Your task to perform on an android device: Open the Play Movies app and select the watchlist tab. Image 0: 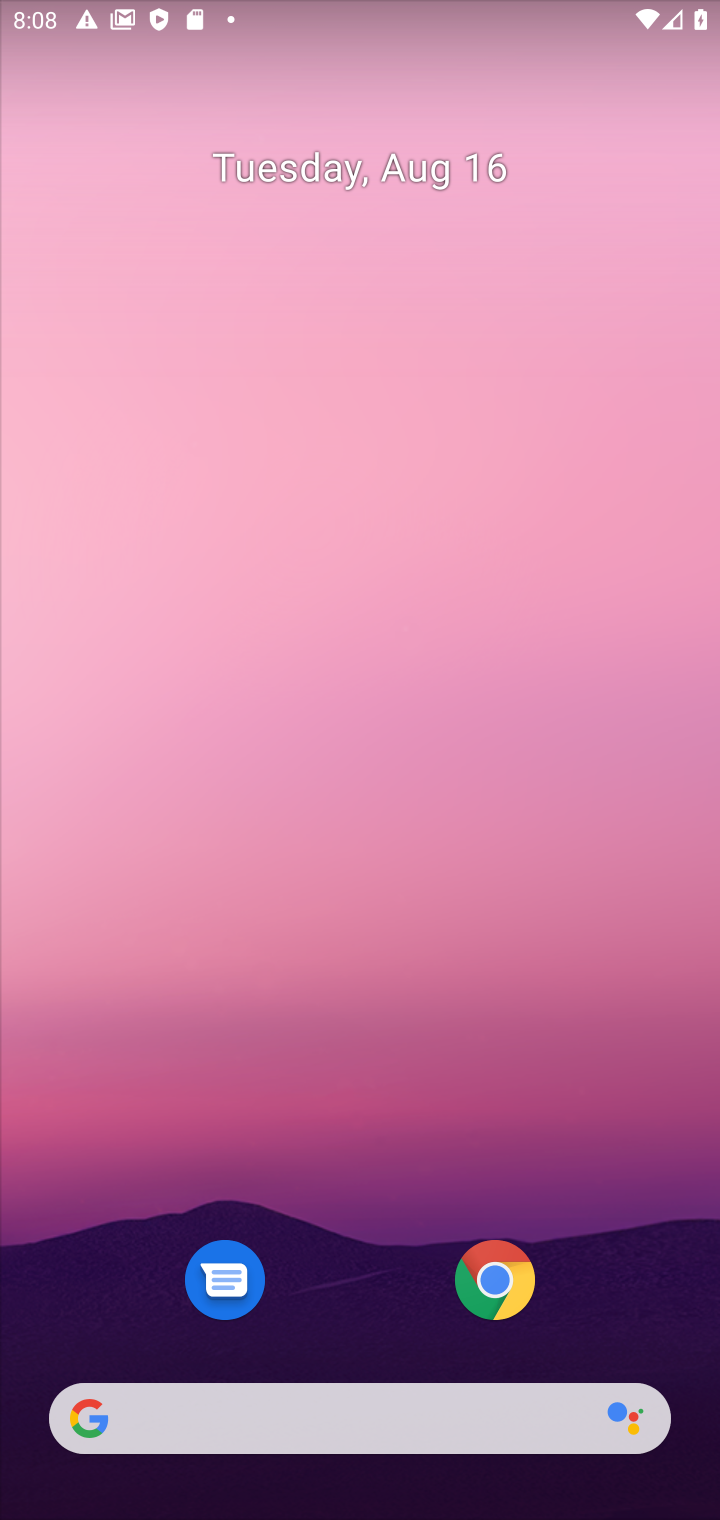
Step 0: drag from (326, 842) to (465, 213)
Your task to perform on an android device: Open the Play Movies app and select the watchlist tab. Image 1: 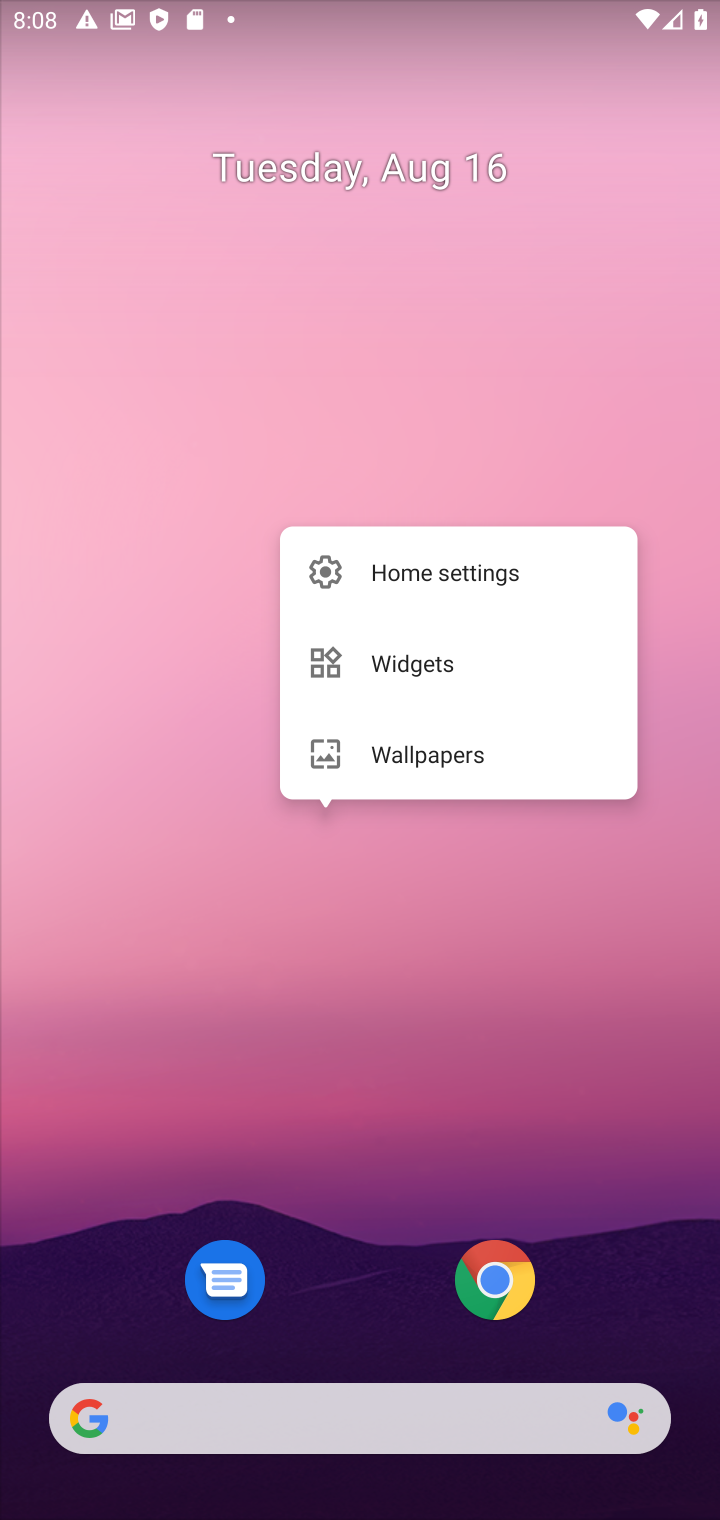
Step 1: click (353, 1270)
Your task to perform on an android device: Open the Play Movies app and select the watchlist tab. Image 2: 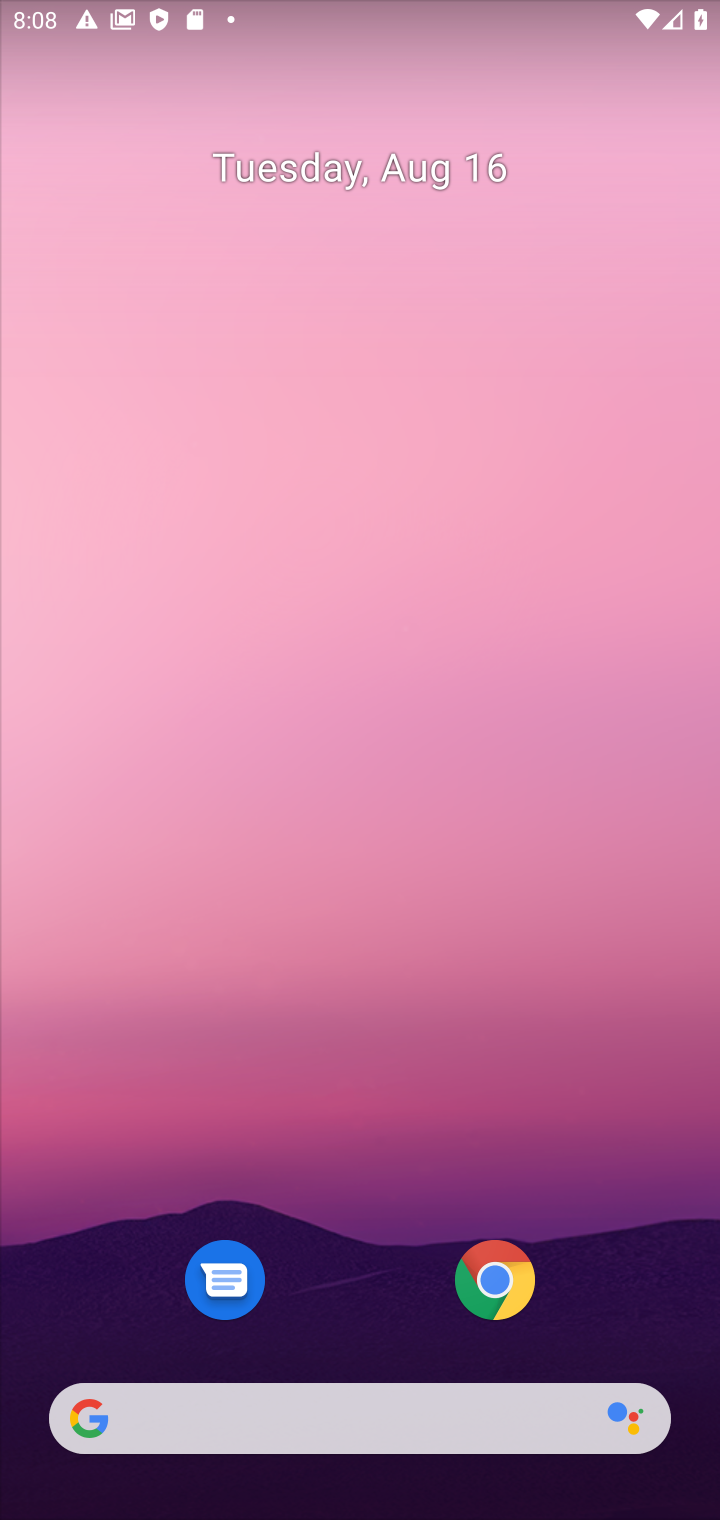
Step 2: drag from (354, 1352) to (425, 127)
Your task to perform on an android device: Open the Play Movies app and select the watchlist tab. Image 3: 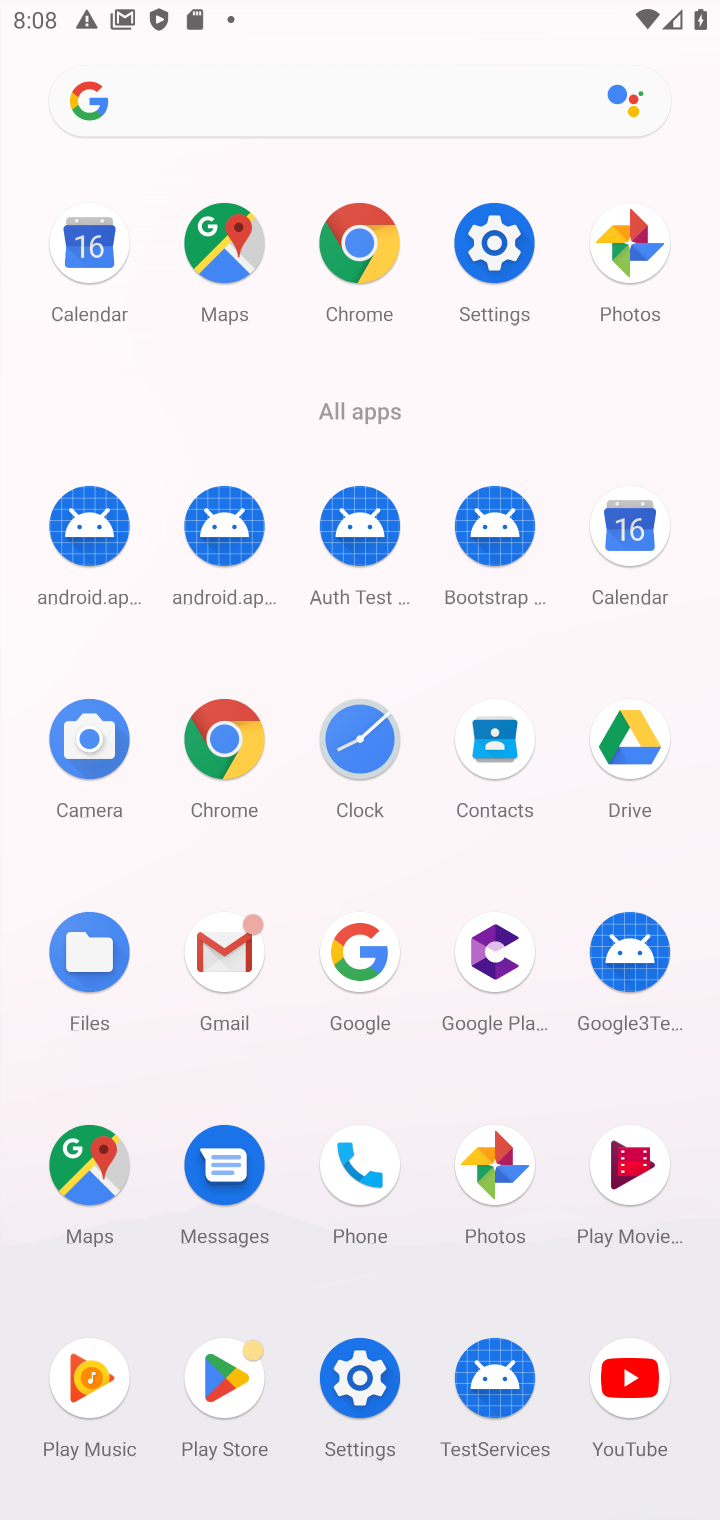
Step 3: click (635, 1189)
Your task to perform on an android device: Open the Play Movies app and select the watchlist tab. Image 4: 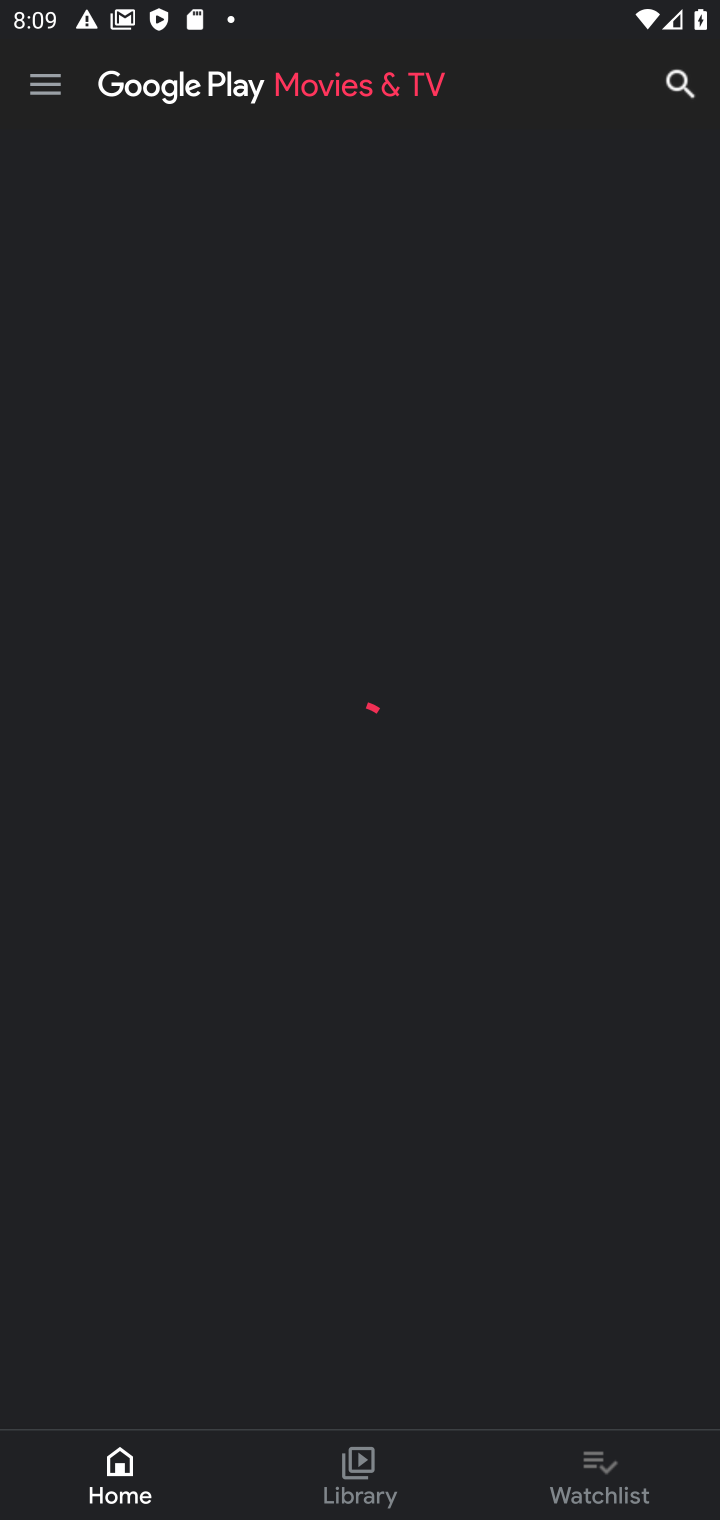
Step 4: click (592, 1472)
Your task to perform on an android device: Open the Play Movies app and select the watchlist tab. Image 5: 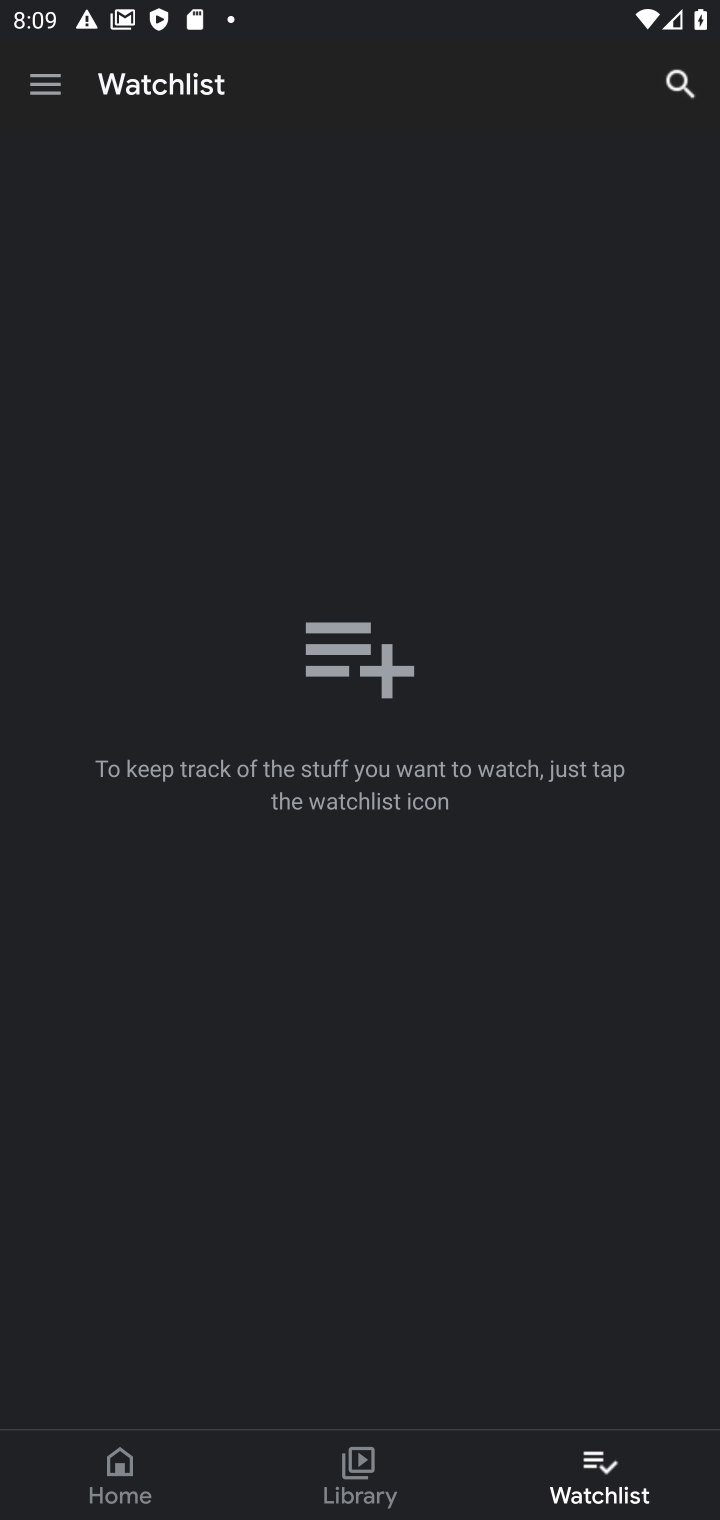
Step 5: task complete